Your task to perform on an android device: toggle sleep mode Image 0: 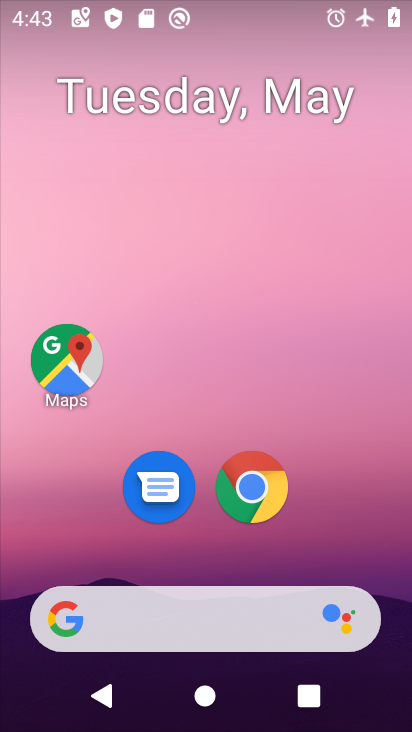
Step 0: drag from (372, 503) to (347, 4)
Your task to perform on an android device: toggle sleep mode Image 1: 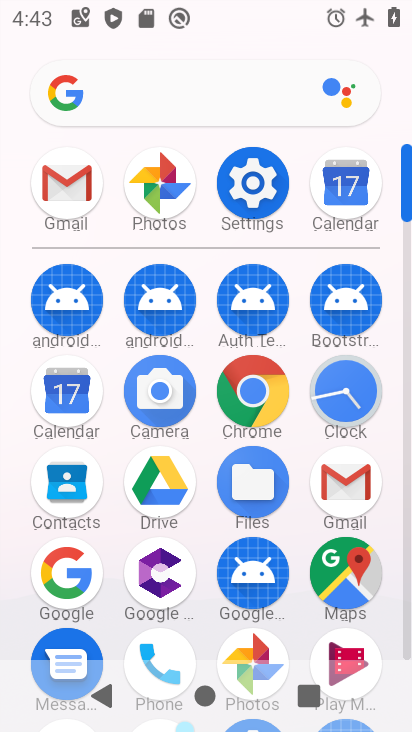
Step 1: click (253, 175)
Your task to perform on an android device: toggle sleep mode Image 2: 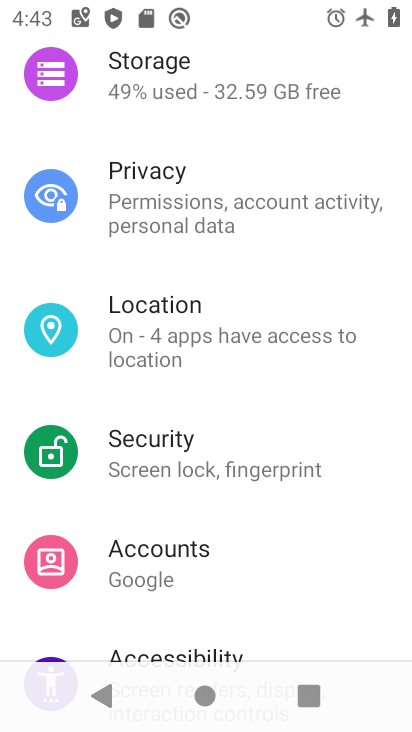
Step 2: drag from (251, 180) to (212, 491)
Your task to perform on an android device: toggle sleep mode Image 3: 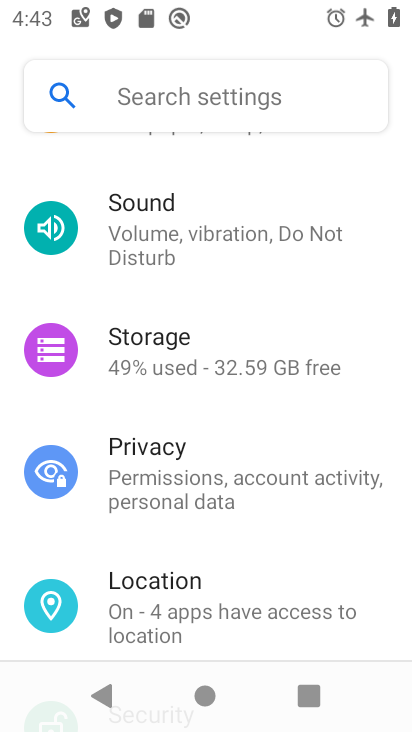
Step 3: drag from (227, 238) to (191, 544)
Your task to perform on an android device: toggle sleep mode Image 4: 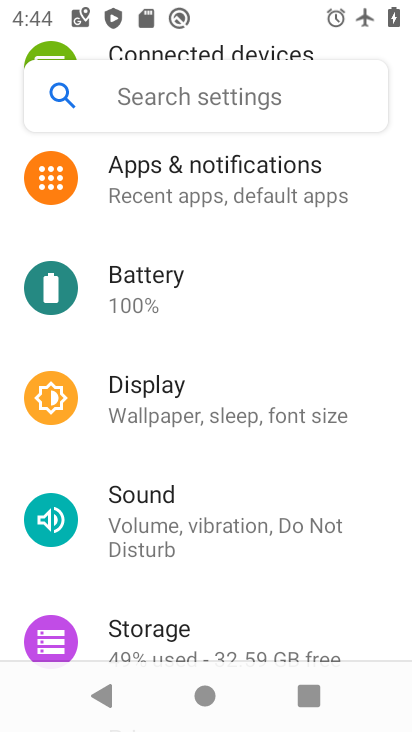
Step 4: click (153, 402)
Your task to perform on an android device: toggle sleep mode Image 5: 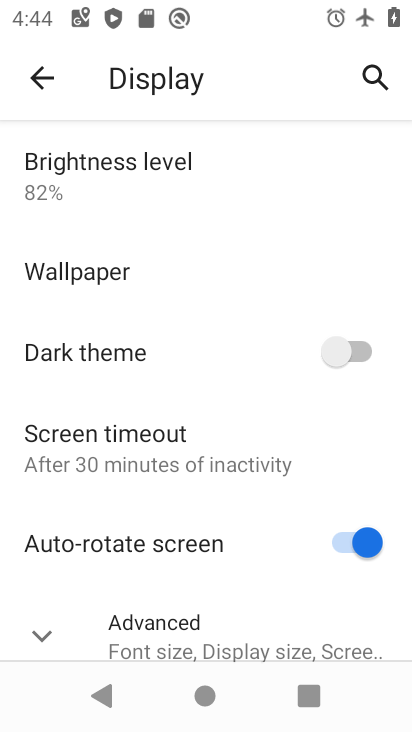
Step 5: click (172, 445)
Your task to perform on an android device: toggle sleep mode Image 6: 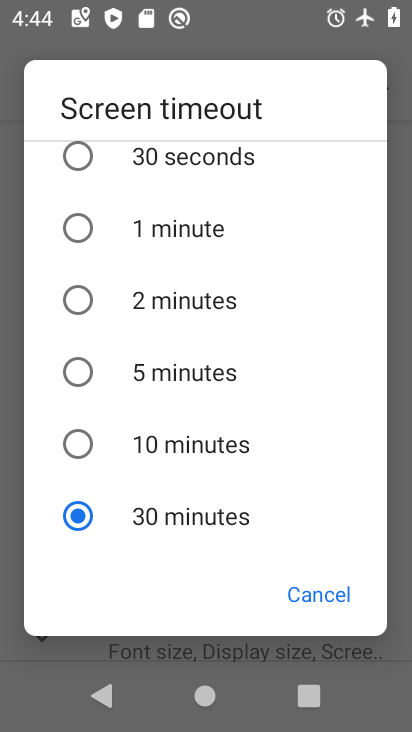
Step 6: click (174, 427)
Your task to perform on an android device: toggle sleep mode Image 7: 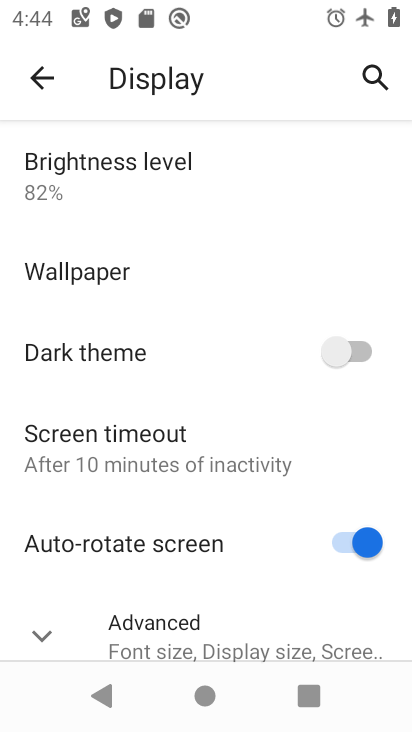
Step 7: task complete